Your task to perform on an android device: turn on the 12-hour format for clock Image 0: 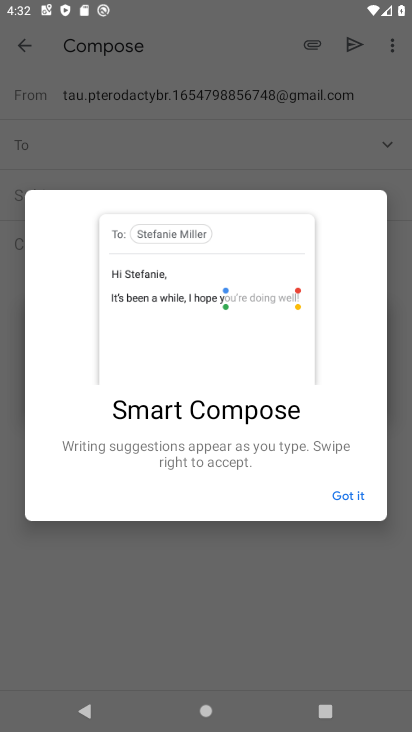
Step 0: press home button
Your task to perform on an android device: turn on the 12-hour format for clock Image 1: 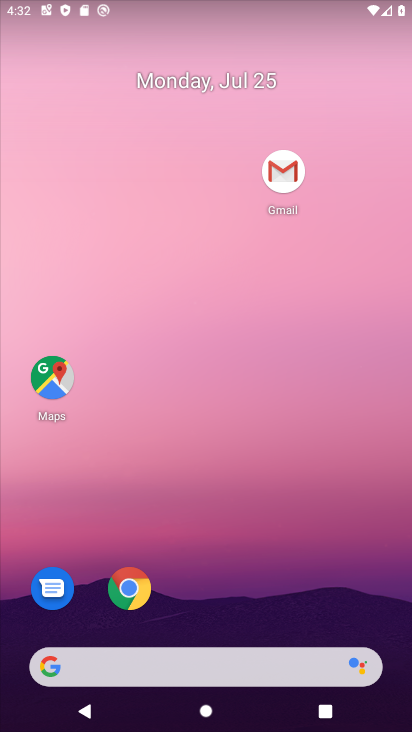
Step 1: drag from (276, 560) to (247, 57)
Your task to perform on an android device: turn on the 12-hour format for clock Image 2: 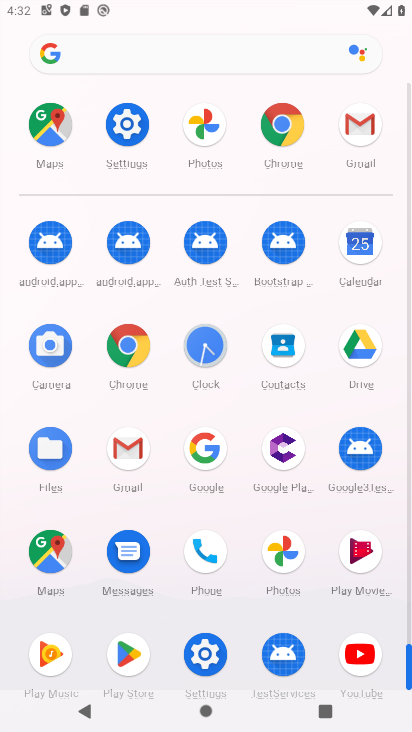
Step 2: click (210, 341)
Your task to perform on an android device: turn on the 12-hour format for clock Image 3: 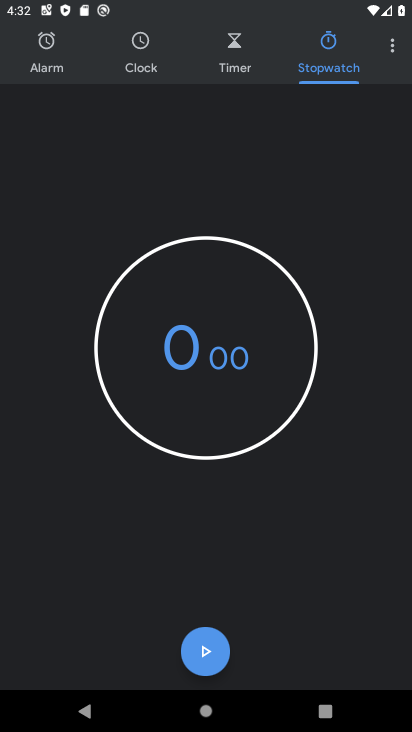
Step 3: click (400, 42)
Your task to perform on an android device: turn on the 12-hour format for clock Image 4: 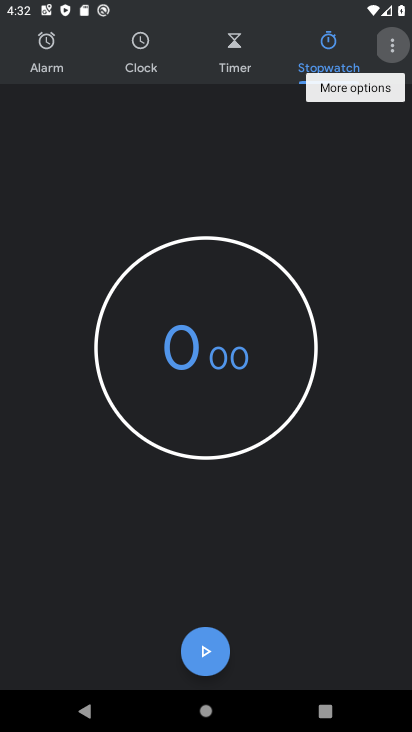
Step 4: click (400, 42)
Your task to perform on an android device: turn on the 12-hour format for clock Image 5: 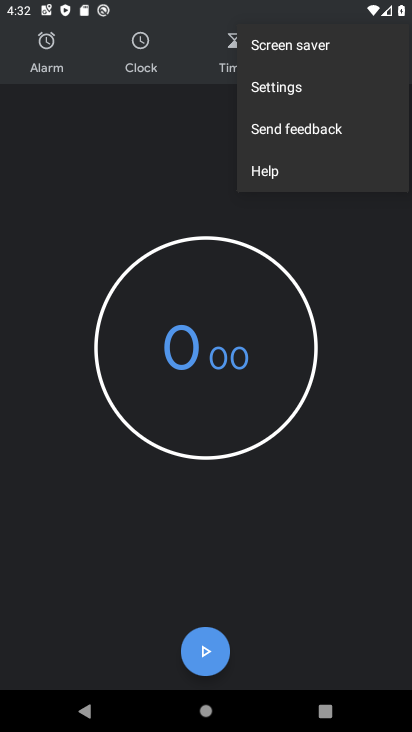
Step 5: click (296, 100)
Your task to perform on an android device: turn on the 12-hour format for clock Image 6: 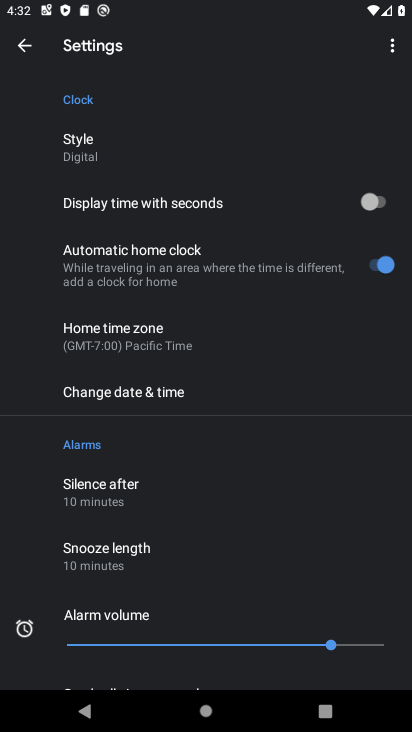
Step 6: click (171, 389)
Your task to perform on an android device: turn on the 12-hour format for clock Image 7: 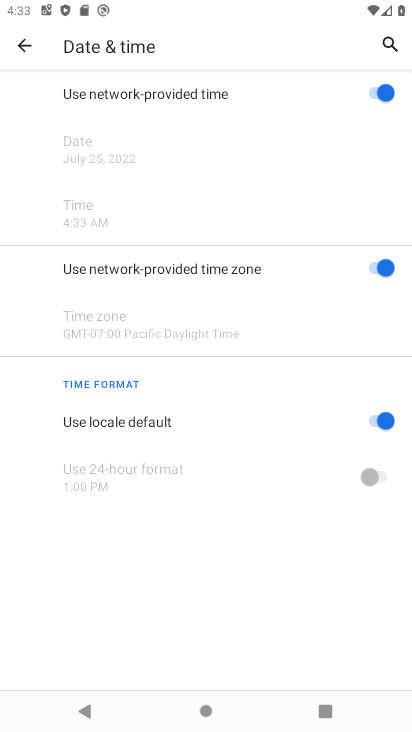
Step 7: task complete